Your task to perform on an android device: check google app version Image 0: 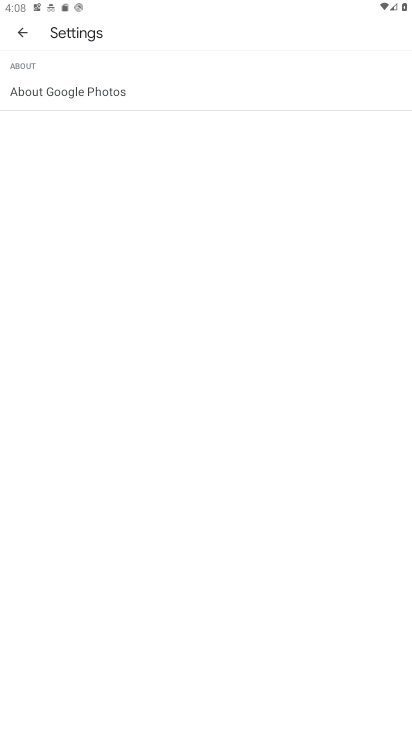
Step 0: press home button
Your task to perform on an android device: check google app version Image 1: 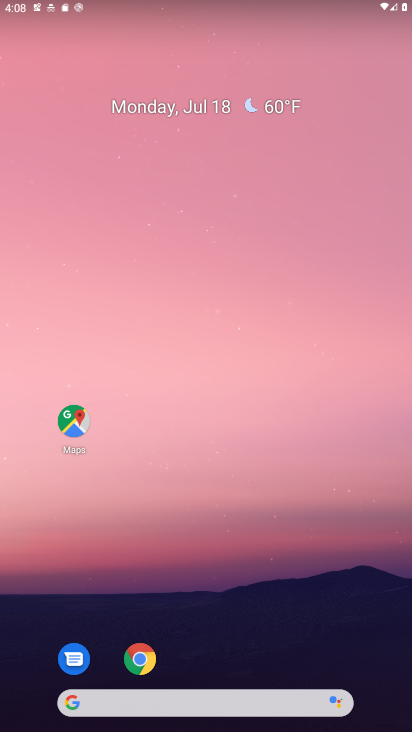
Step 1: drag from (277, 696) to (396, 89)
Your task to perform on an android device: check google app version Image 2: 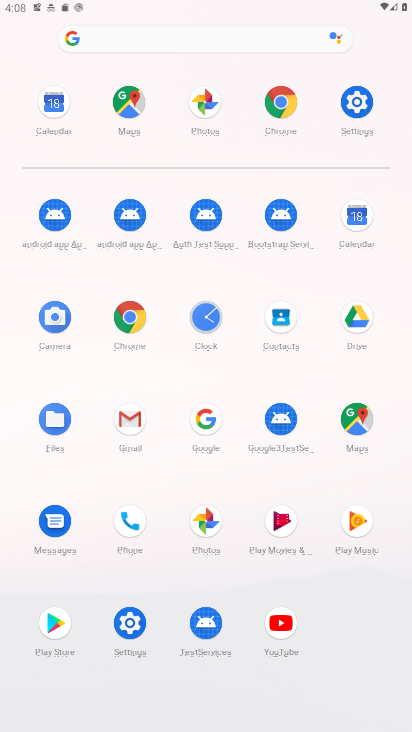
Step 2: click (120, 316)
Your task to perform on an android device: check google app version Image 3: 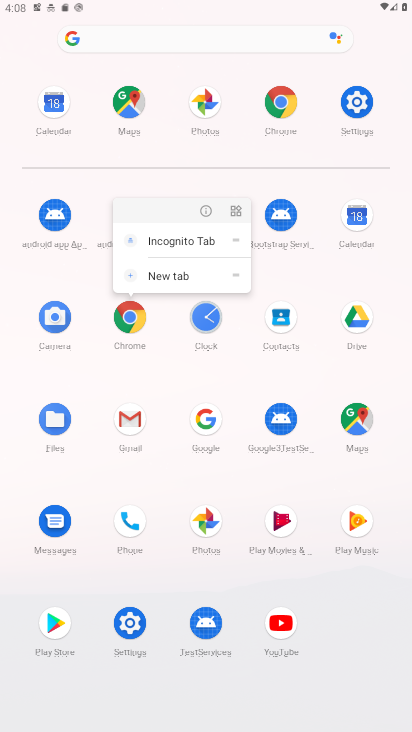
Step 3: click (137, 322)
Your task to perform on an android device: check google app version Image 4: 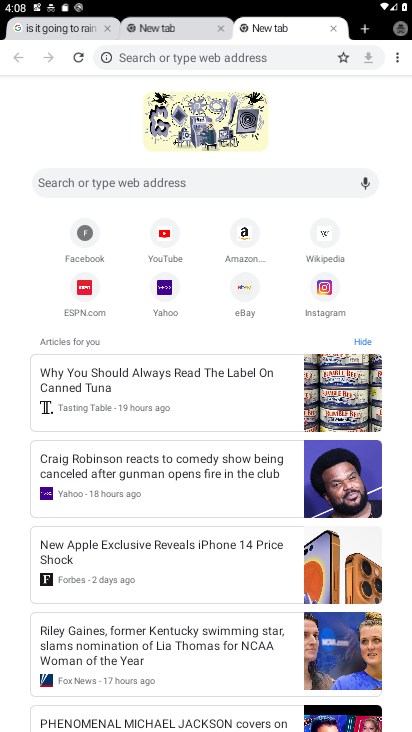
Step 4: click (395, 52)
Your task to perform on an android device: check google app version Image 5: 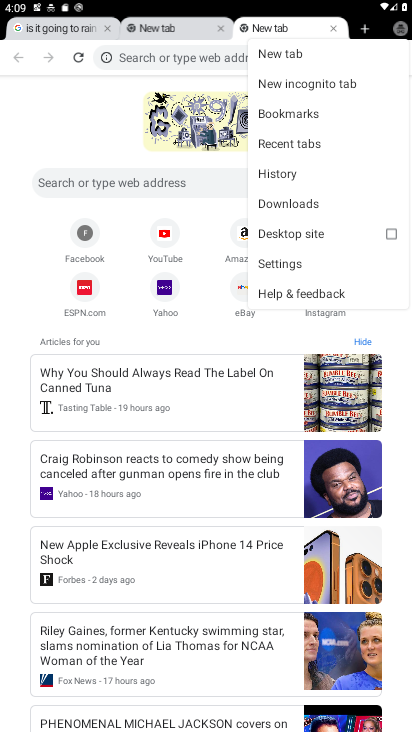
Step 5: click (293, 298)
Your task to perform on an android device: check google app version Image 6: 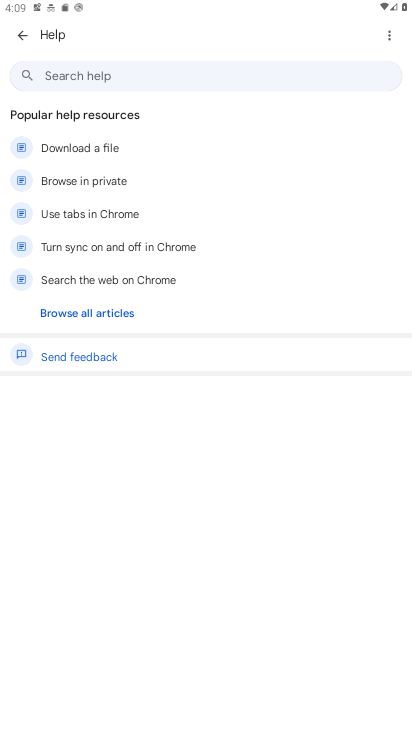
Step 6: click (390, 43)
Your task to perform on an android device: check google app version Image 7: 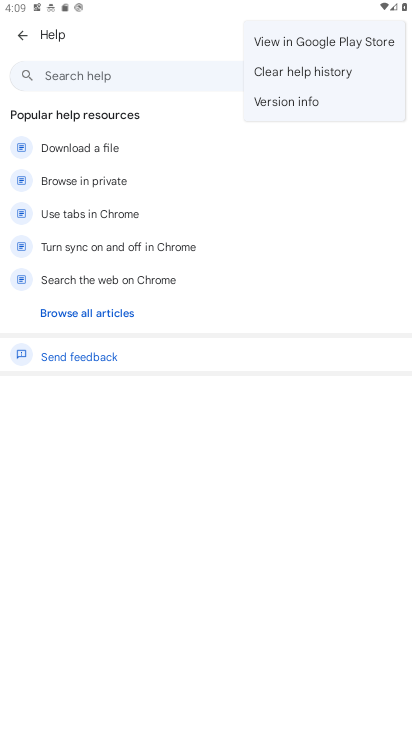
Step 7: click (325, 98)
Your task to perform on an android device: check google app version Image 8: 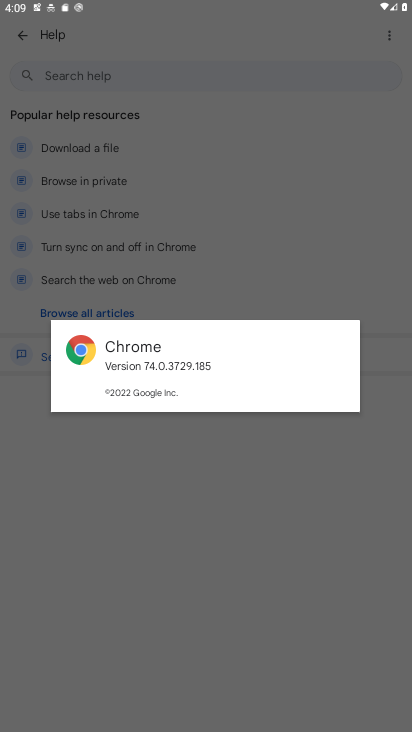
Step 8: task complete